Your task to perform on an android device: Go to network settings Image 0: 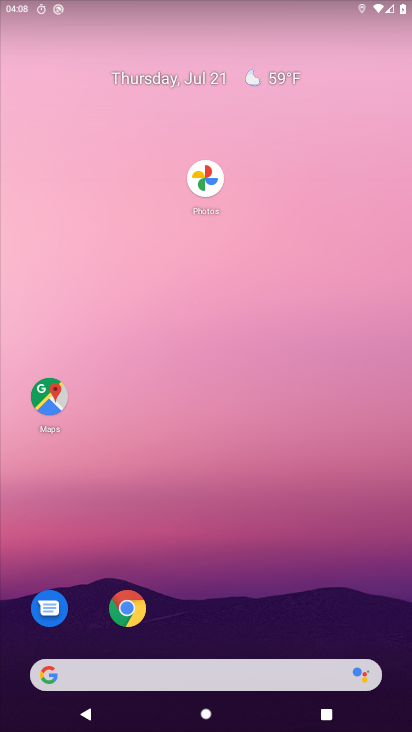
Step 0: press home button
Your task to perform on an android device: Go to network settings Image 1: 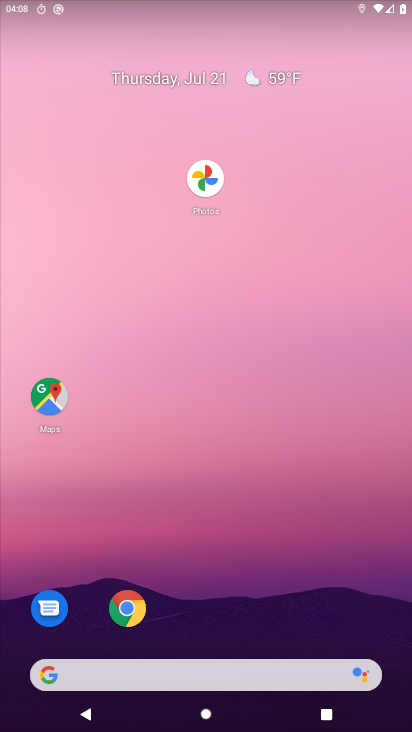
Step 1: drag from (210, 646) to (267, 23)
Your task to perform on an android device: Go to network settings Image 2: 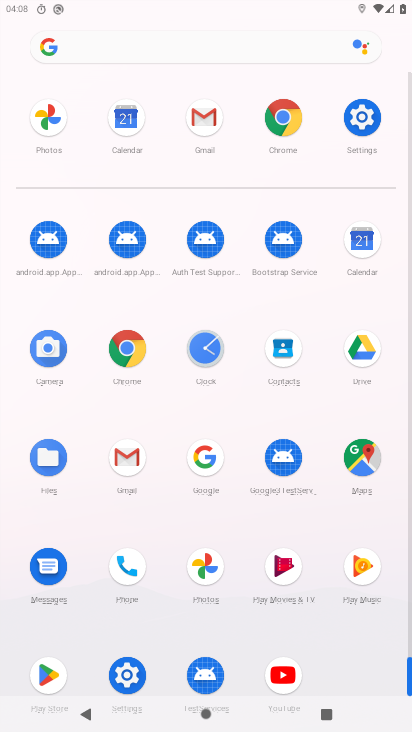
Step 2: click (360, 106)
Your task to perform on an android device: Go to network settings Image 3: 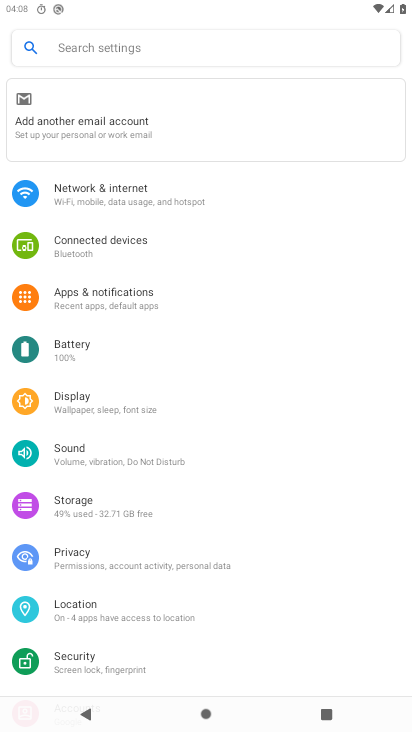
Step 3: click (160, 184)
Your task to perform on an android device: Go to network settings Image 4: 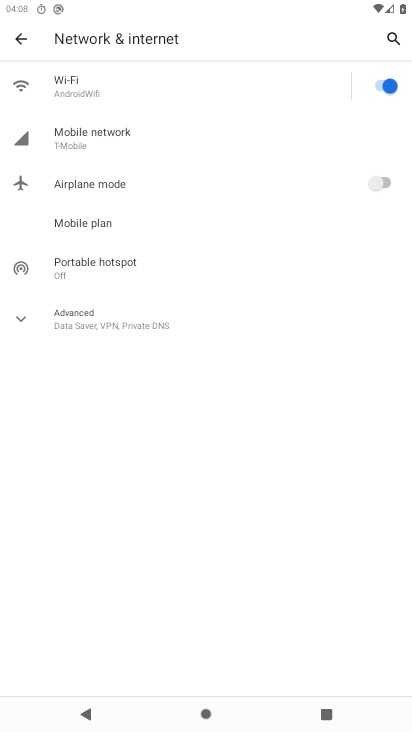
Step 4: click (40, 323)
Your task to perform on an android device: Go to network settings Image 5: 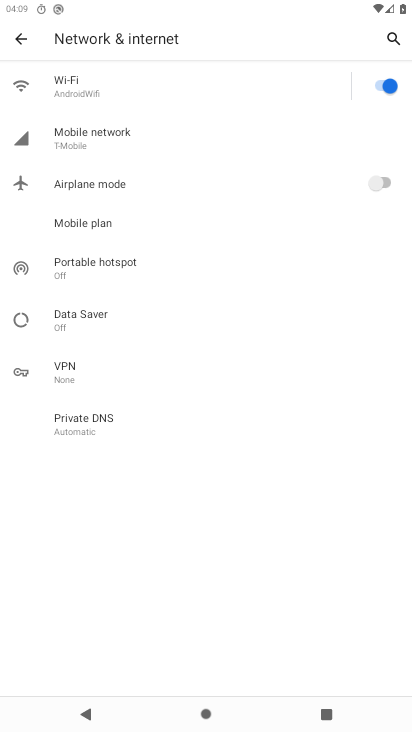
Step 5: task complete